Your task to perform on an android device: Show me recent news Image 0: 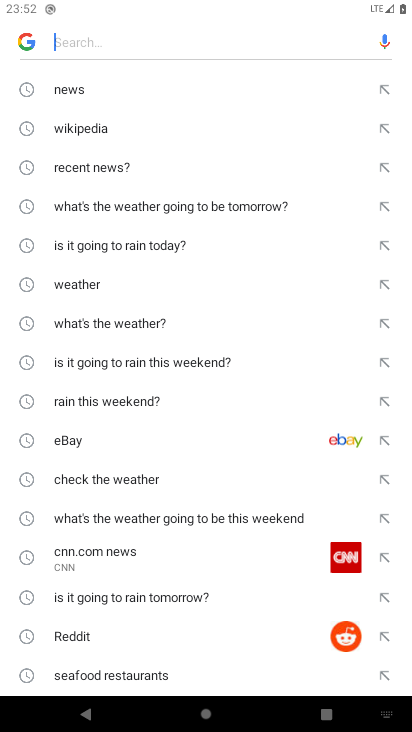
Step 0: press home button
Your task to perform on an android device: Show me recent news Image 1: 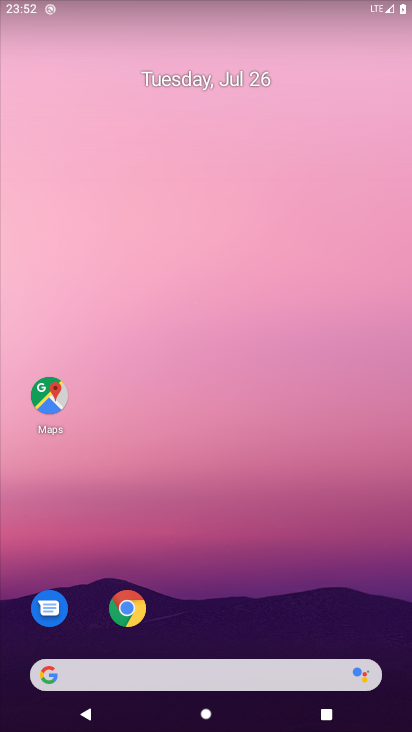
Step 1: click (46, 670)
Your task to perform on an android device: Show me recent news Image 2: 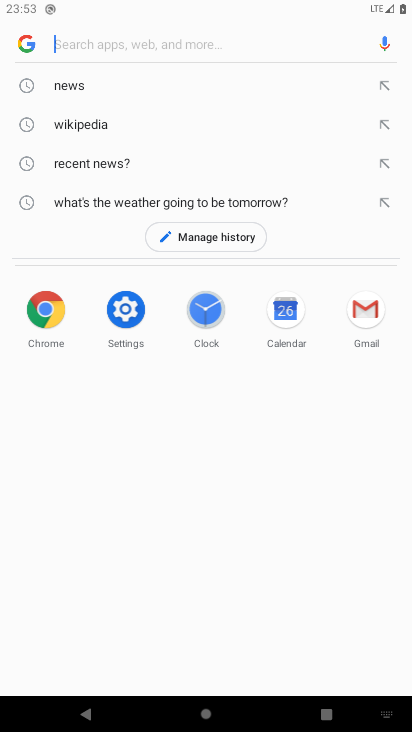
Step 2: type " recent news"
Your task to perform on an android device: Show me recent news Image 3: 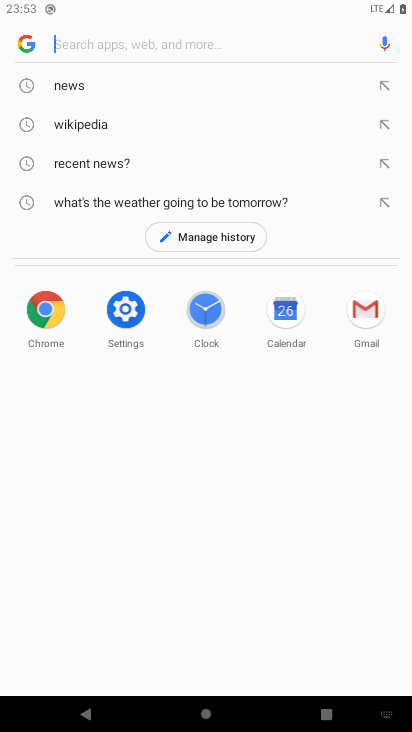
Step 3: click (144, 39)
Your task to perform on an android device: Show me recent news Image 4: 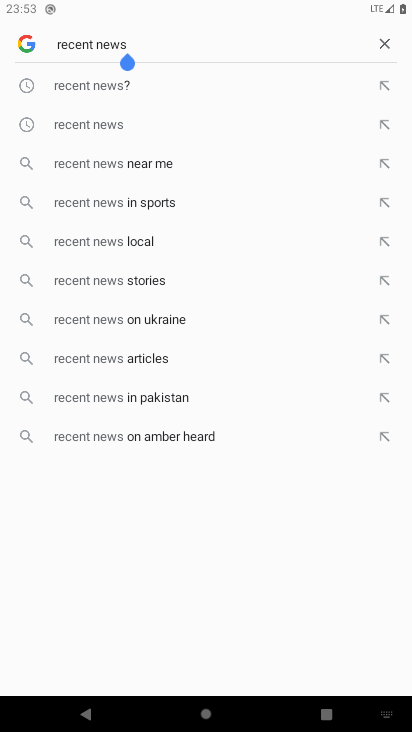
Step 4: press enter
Your task to perform on an android device: Show me recent news Image 5: 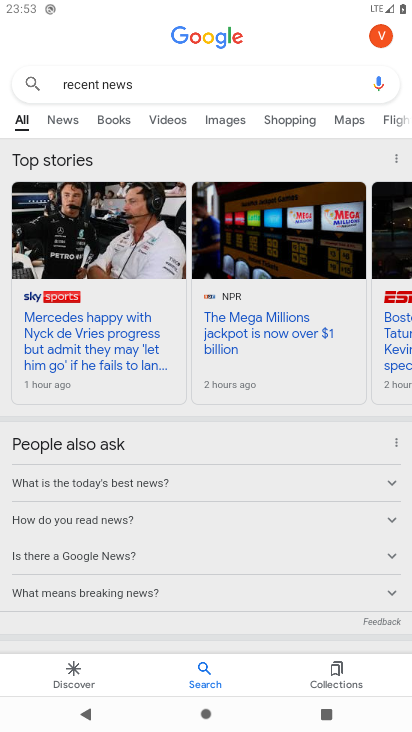
Step 5: task complete